Your task to perform on an android device: toggle javascript in the chrome app Image 0: 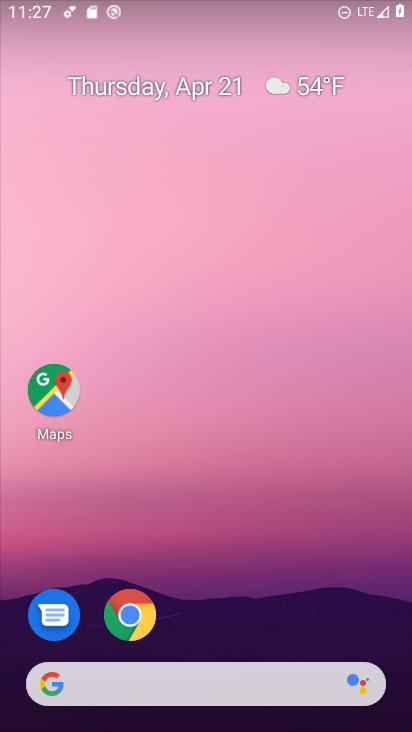
Step 0: click (137, 621)
Your task to perform on an android device: toggle javascript in the chrome app Image 1: 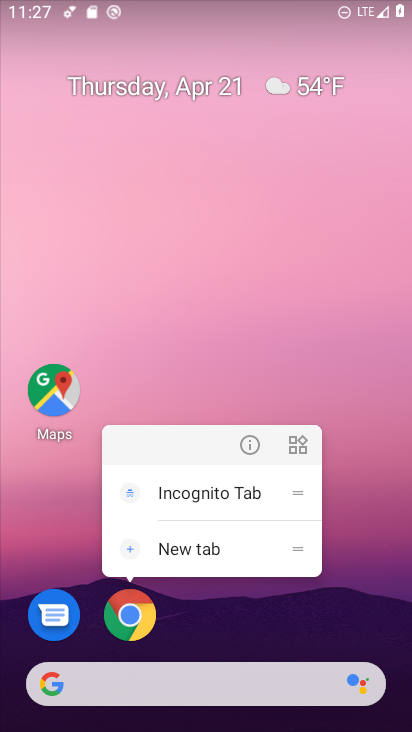
Step 1: click (137, 620)
Your task to perform on an android device: toggle javascript in the chrome app Image 2: 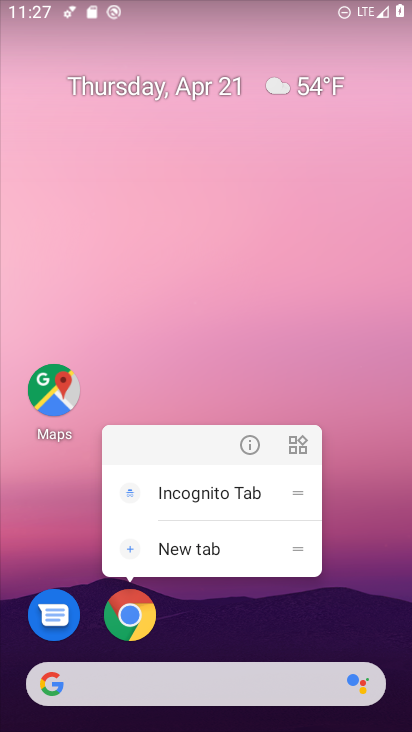
Step 2: click (130, 627)
Your task to perform on an android device: toggle javascript in the chrome app Image 3: 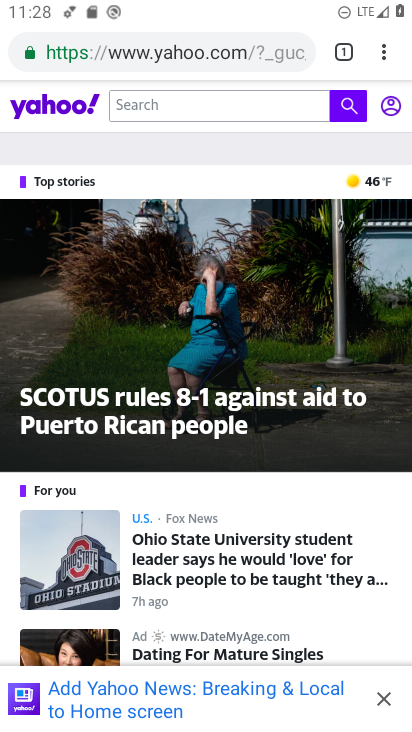
Step 3: click (379, 75)
Your task to perform on an android device: toggle javascript in the chrome app Image 4: 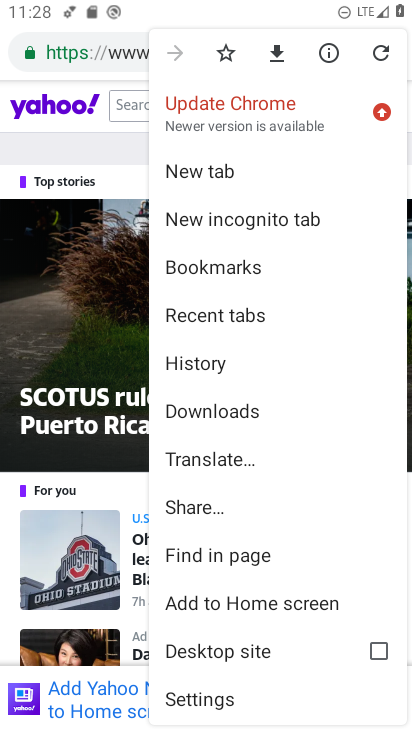
Step 4: click (222, 696)
Your task to perform on an android device: toggle javascript in the chrome app Image 5: 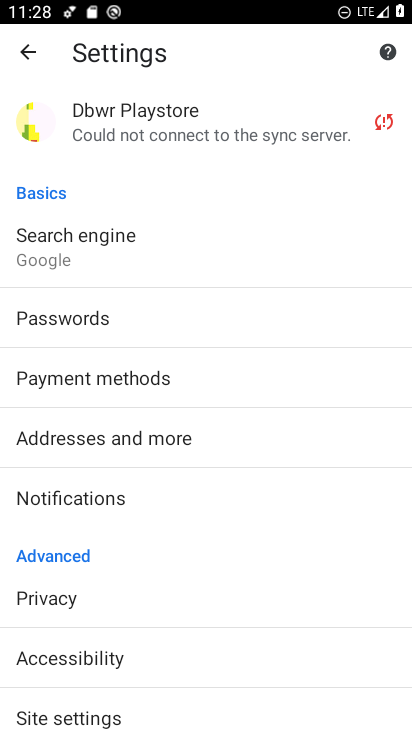
Step 5: click (116, 711)
Your task to perform on an android device: toggle javascript in the chrome app Image 6: 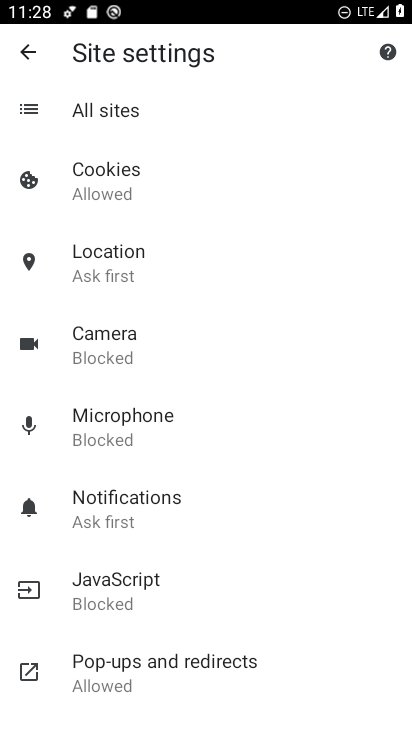
Step 6: click (96, 576)
Your task to perform on an android device: toggle javascript in the chrome app Image 7: 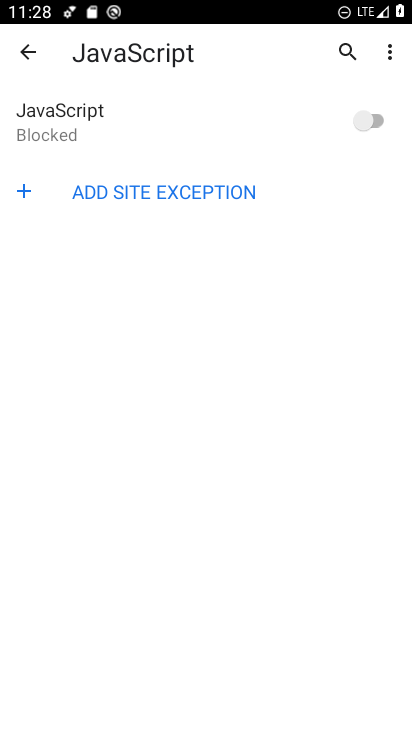
Step 7: click (378, 115)
Your task to perform on an android device: toggle javascript in the chrome app Image 8: 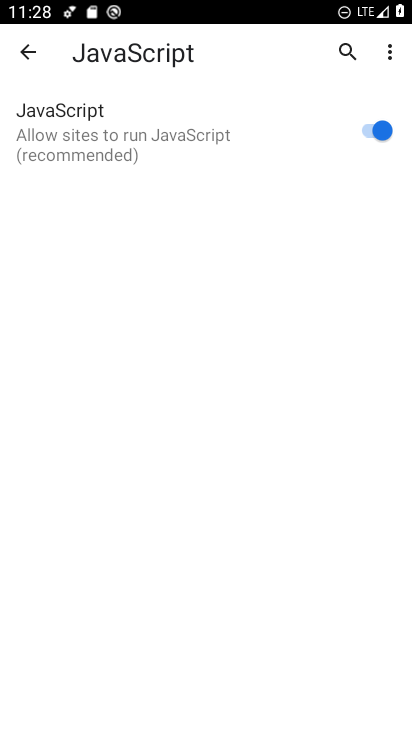
Step 8: task complete